Your task to perform on an android device: Open Android settings Image 0: 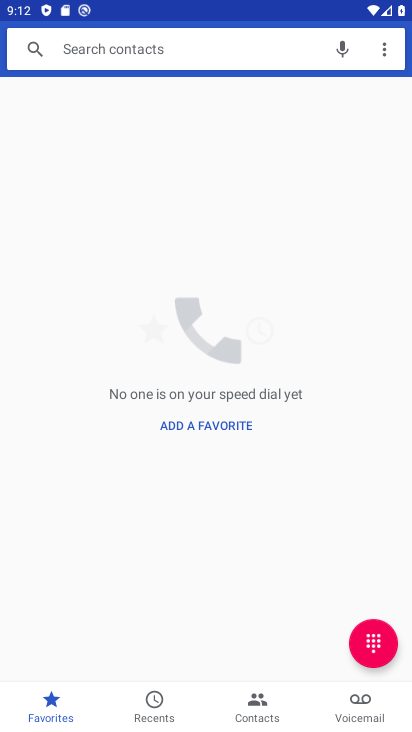
Step 0: press home button
Your task to perform on an android device: Open Android settings Image 1: 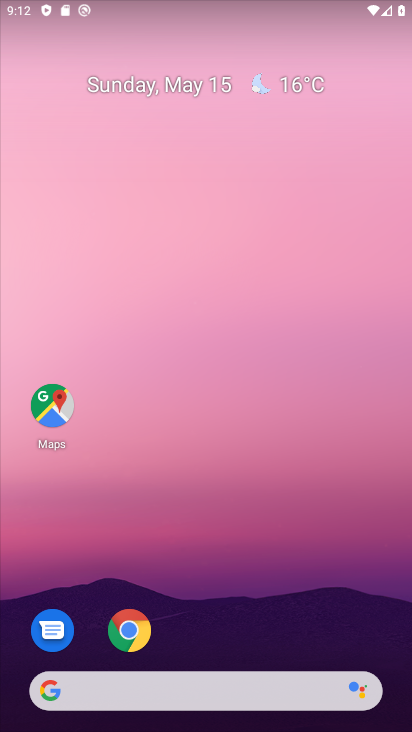
Step 1: drag from (229, 638) to (220, 184)
Your task to perform on an android device: Open Android settings Image 2: 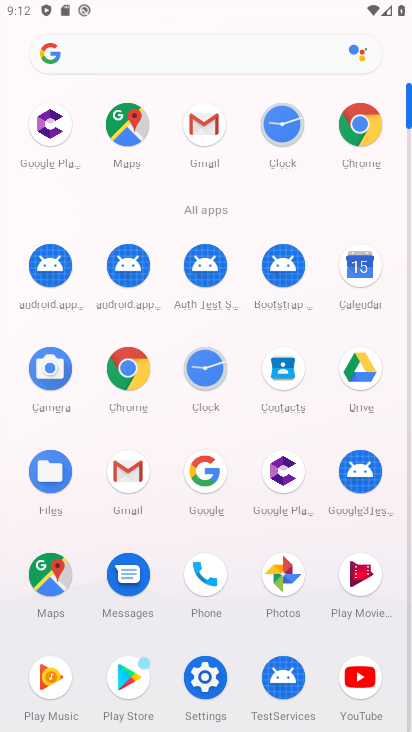
Step 2: click (207, 677)
Your task to perform on an android device: Open Android settings Image 3: 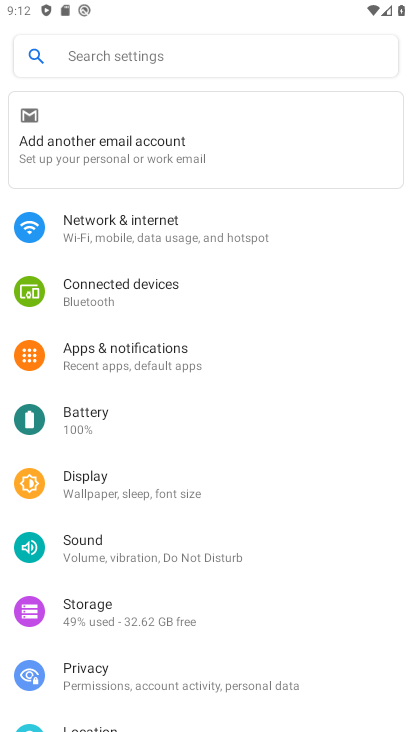
Step 3: task complete